Your task to perform on an android device: open app "DoorDash - Food Delivery" Image 0: 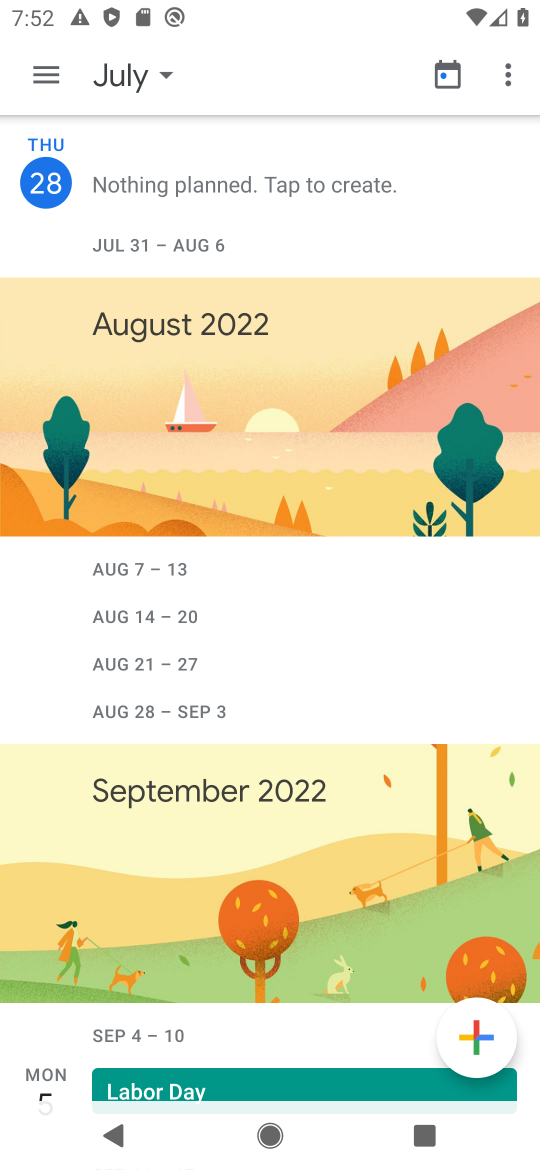
Step 0: press home button
Your task to perform on an android device: open app "DoorDash - Food Delivery" Image 1: 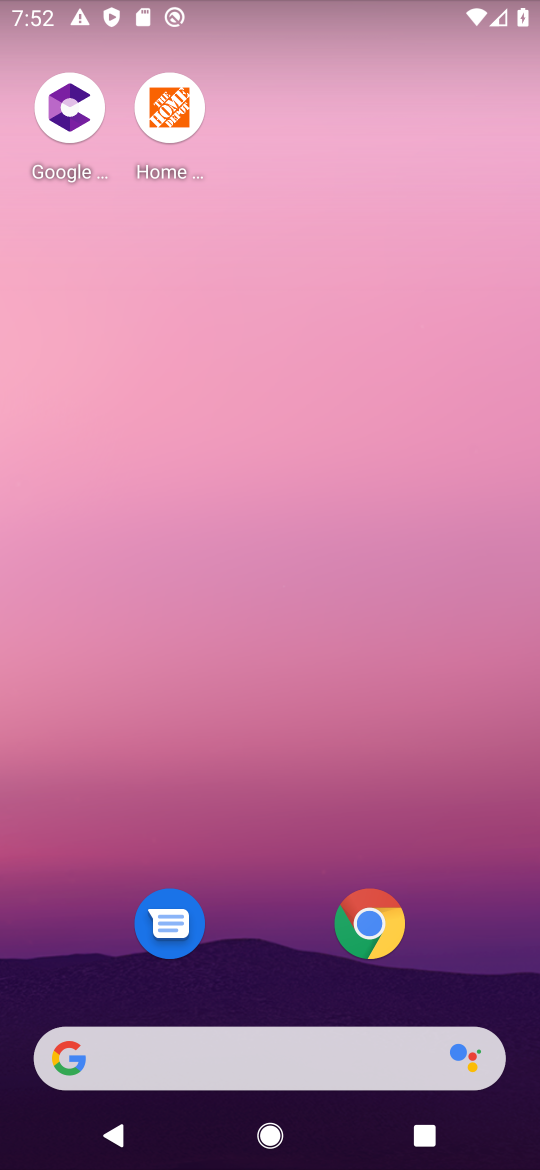
Step 1: drag from (486, 942) to (391, 217)
Your task to perform on an android device: open app "DoorDash - Food Delivery" Image 2: 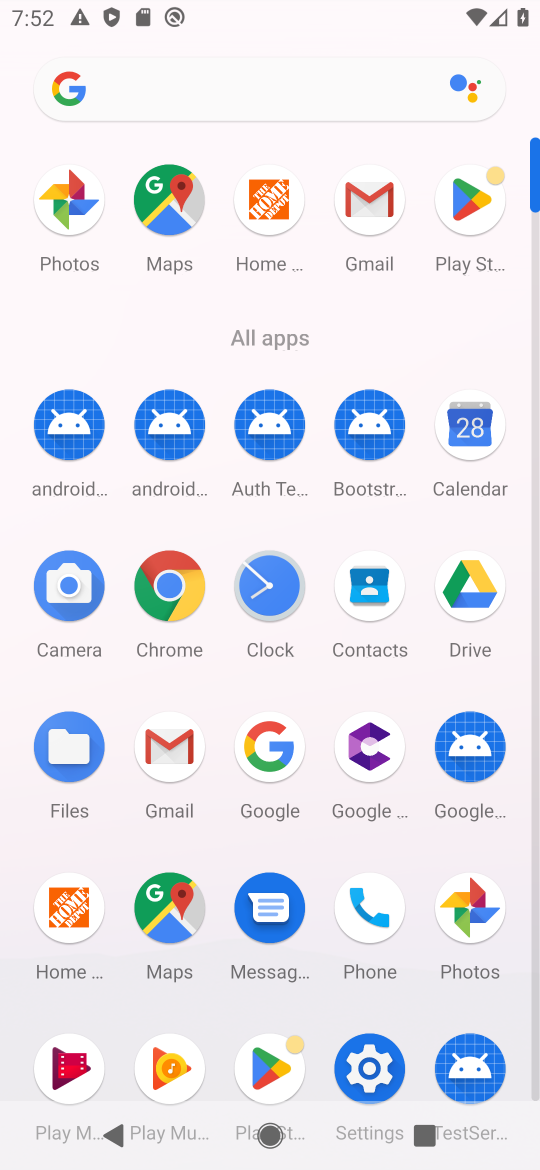
Step 2: click (466, 194)
Your task to perform on an android device: open app "DoorDash - Food Delivery" Image 3: 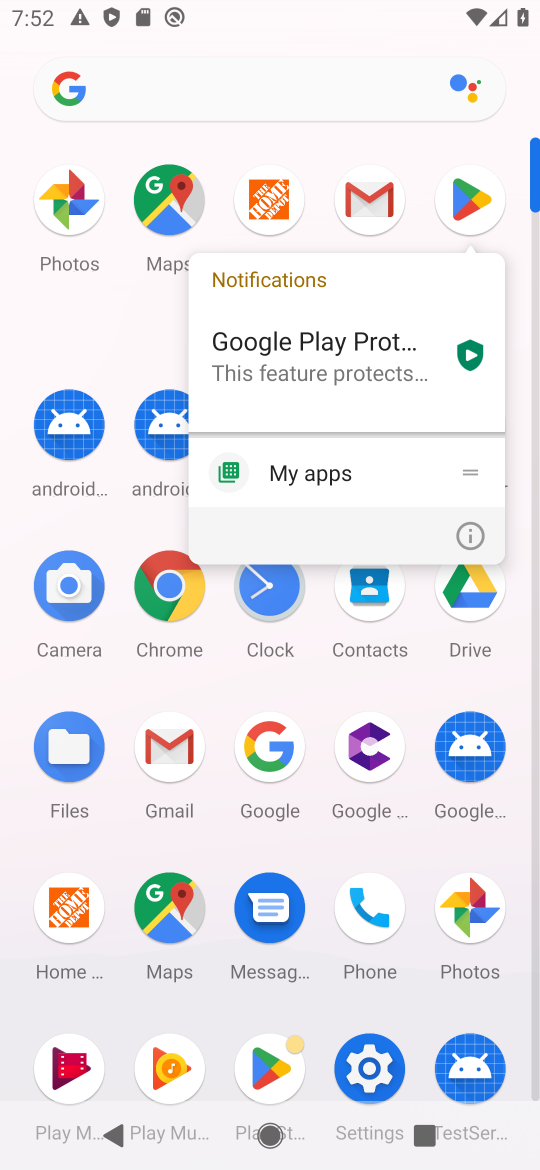
Step 3: click (466, 194)
Your task to perform on an android device: open app "DoorDash - Food Delivery" Image 4: 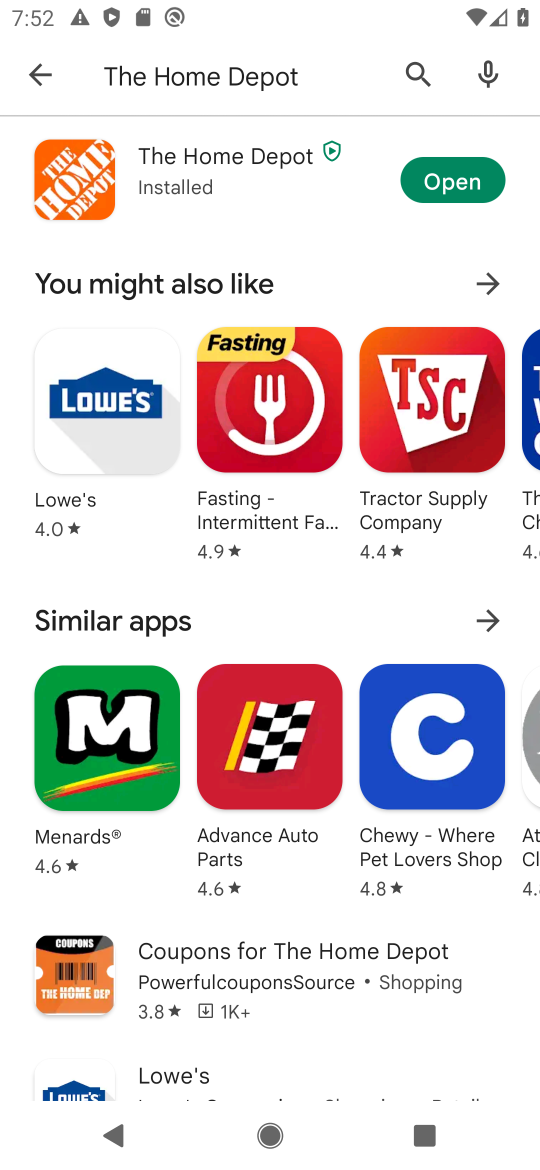
Step 4: click (329, 86)
Your task to perform on an android device: open app "DoorDash - Food Delivery" Image 5: 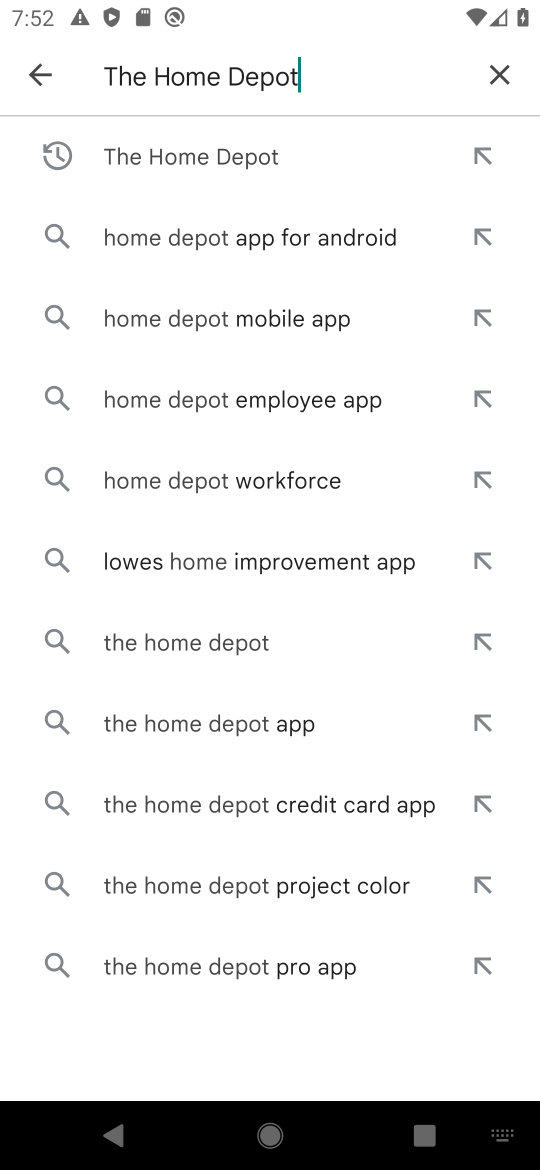
Step 5: click (506, 75)
Your task to perform on an android device: open app "DoorDash - Food Delivery" Image 6: 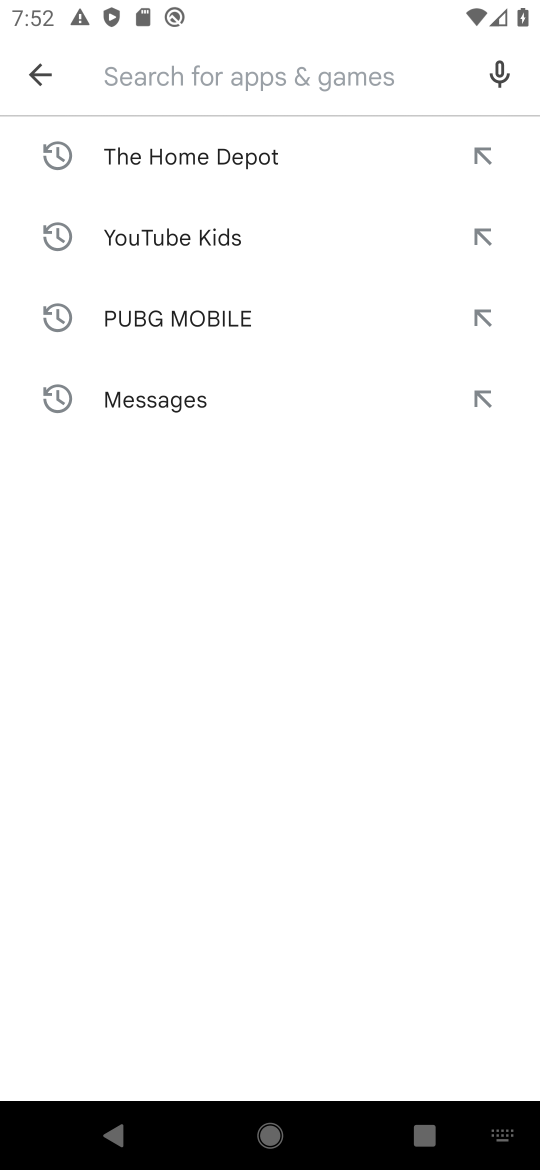
Step 6: type "DoorDash - Food Delivery"
Your task to perform on an android device: open app "DoorDash - Food Delivery" Image 7: 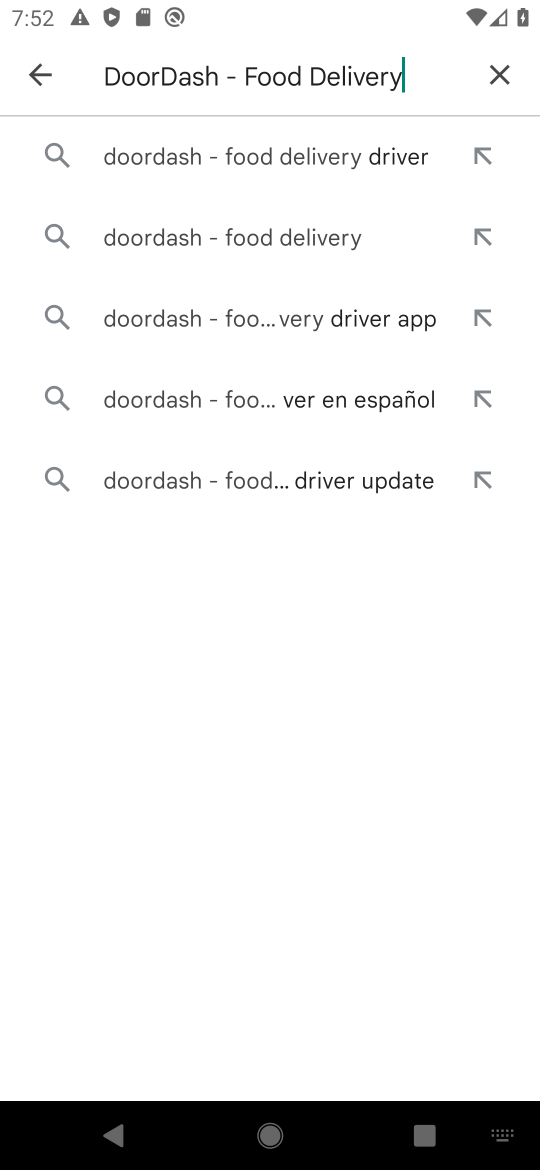
Step 7: press enter
Your task to perform on an android device: open app "DoorDash - Food Delivery" Image 8: 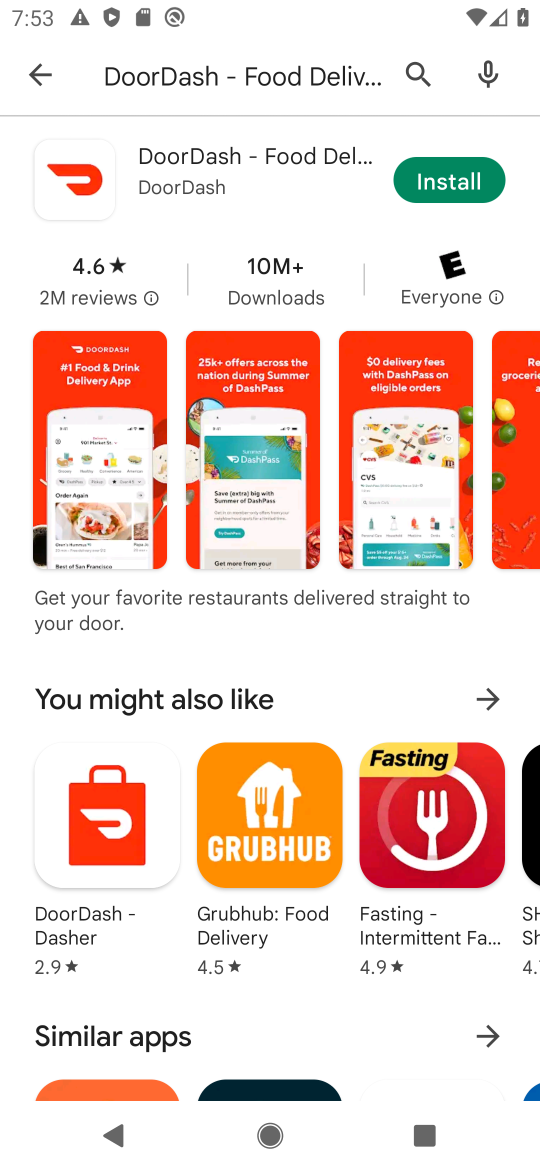
Step 8: task complete